Your task to perform on an android device: toggle pop-ups in chrome Image 0: 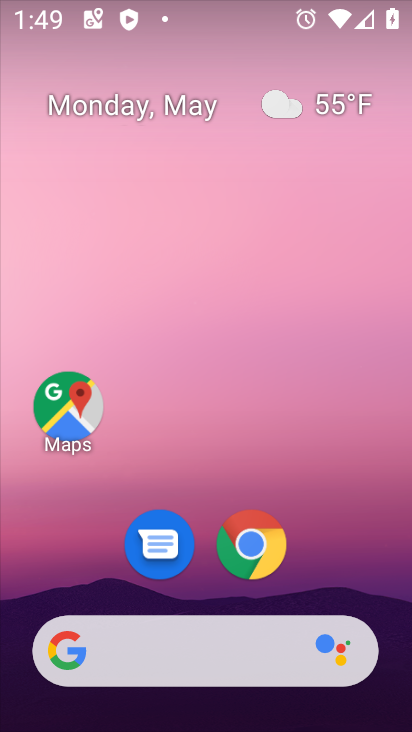
Step 0: click (258, 542)
Your task to perform on an android device: toggle pop-ups in chrome Image 1: 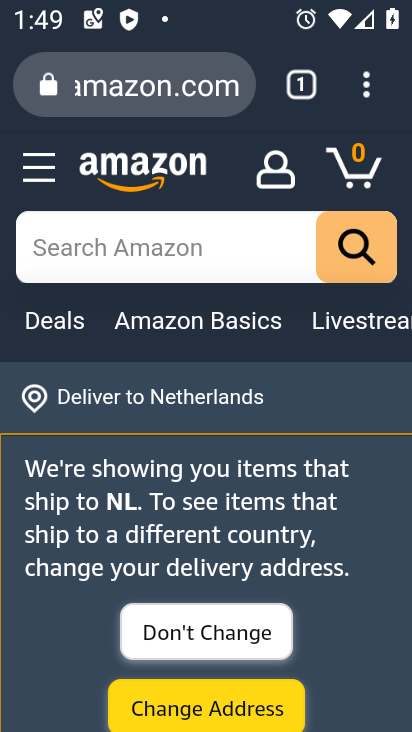
Step 1: click (363, 94)
Your task to perform on an android device: toggle pop-ups in chrome Image 2: 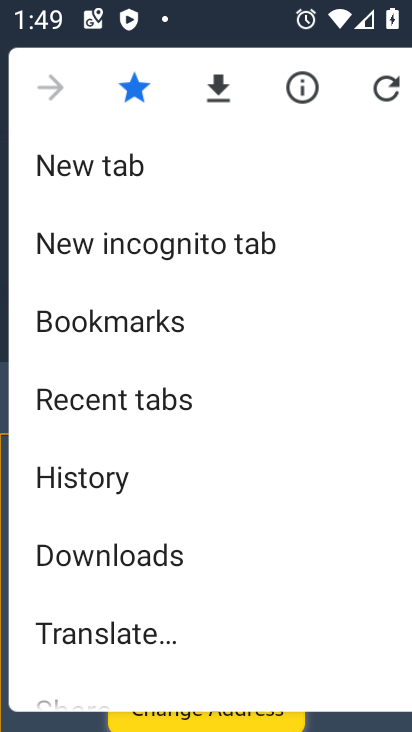
Step 2: drag from (240, 628) to (283, 235)
Your task to perform on an android device: toggle pop-ups in chrome Image 3: 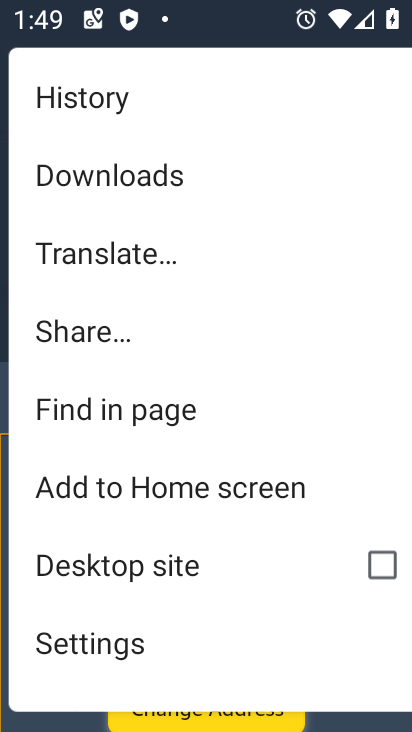
Step 3: click (75, 646)
Your task to perform on an android device: toggle pop-ups in chrome Image 4: 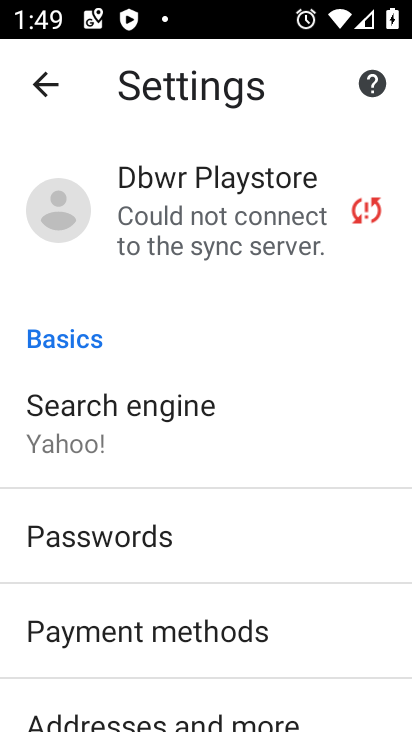
Step 4: drag from (303, 671) to (259, 154)
Your task to perform on an android device: toggle pop-ups in chrome Image 5: 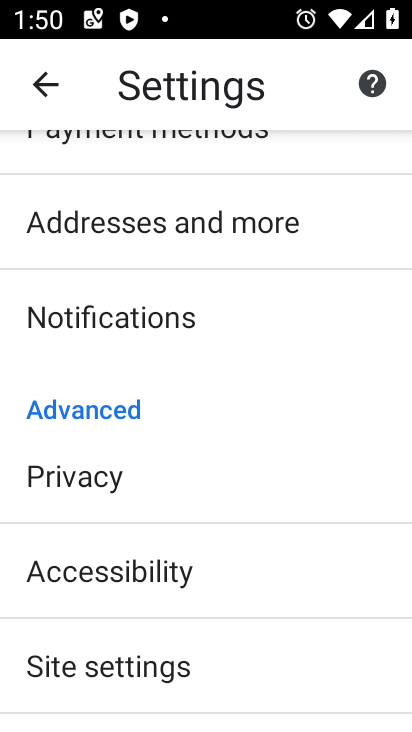
Step 5: drag from (232, 664) to (302, 291)
Your task to perform on an android device: toggle pop-ups in chrome Image 6: 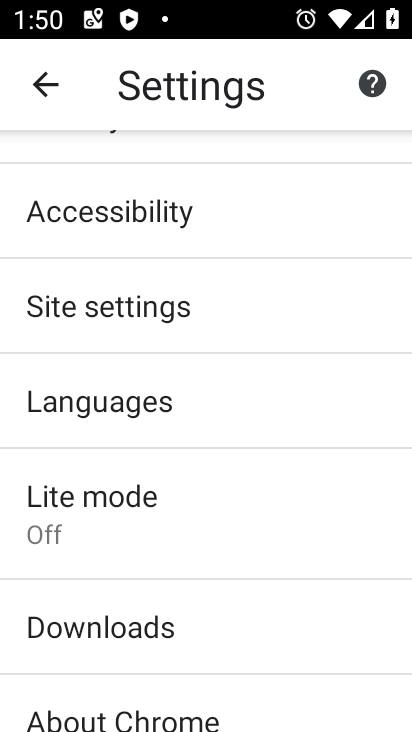
Step 6: click (71, 307)
Your task to perform on an android device: toggle pop-ups in chrome Image 7: 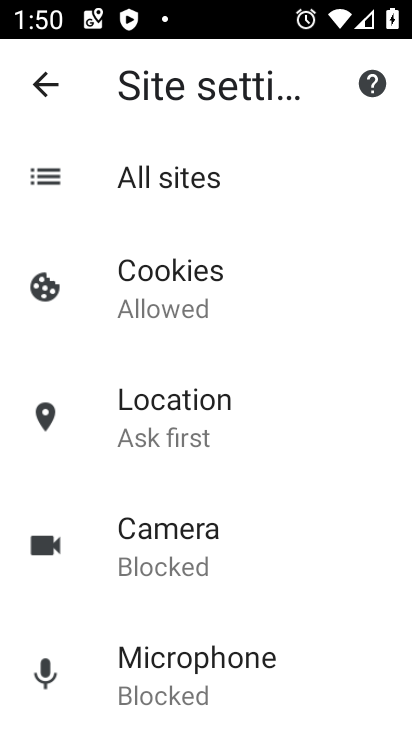
Step 7: drag from (302, 686) to (290, 284)
Your task to perform on an android device: toggle pop-ups in chrome Image 8: 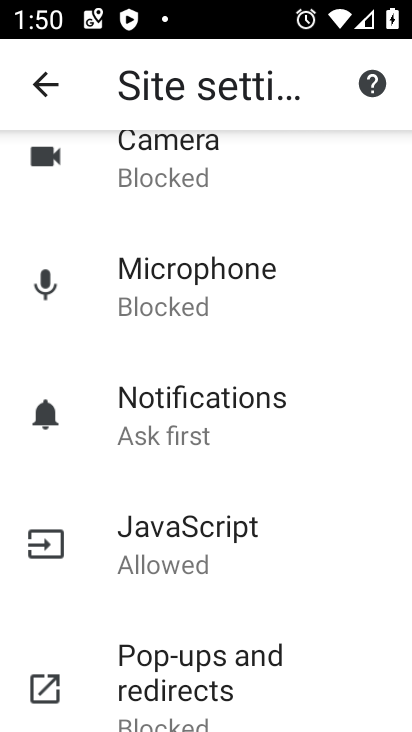
Step 8: click (177, 657)
Your task to perform on an android device: toggle pop-ups in chrome Image 9: 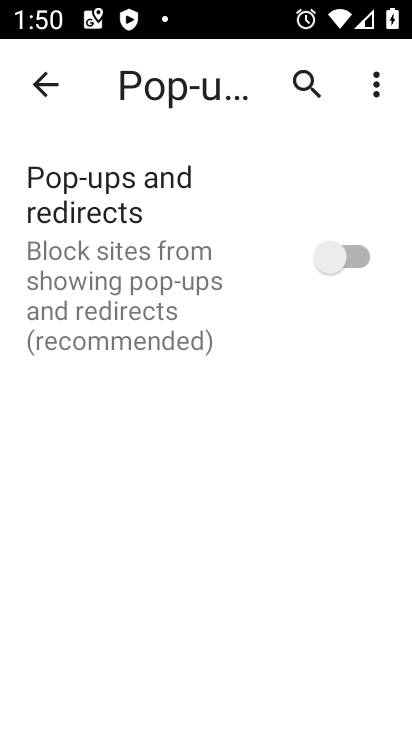
Step 9: click (361, 258)
Your task to perform on an android device: toggle pop-ups in chrome Image 10: 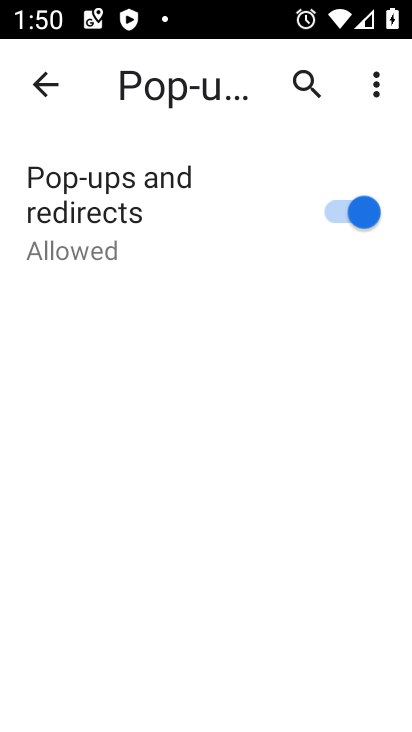
Step 10: task complete